Your task to perform on an android device: find which apps use the phone's location Image 0: 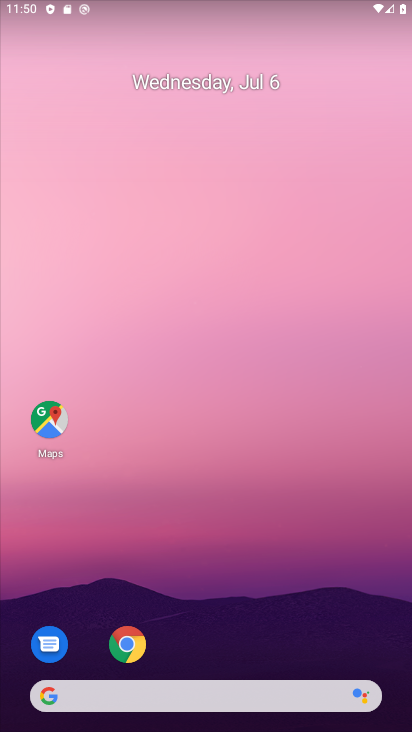
Step 0: drag from (201, 652) to (219, 152)
Your task to perform on an android device: find which apps use the phone's location Image 1: 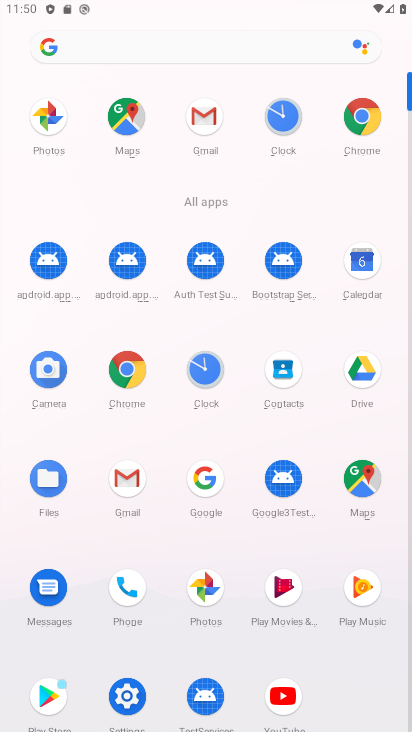
Step 1: click (110, 694)
Your task to perform on an android device: find which apps use the phone's location Image 2: 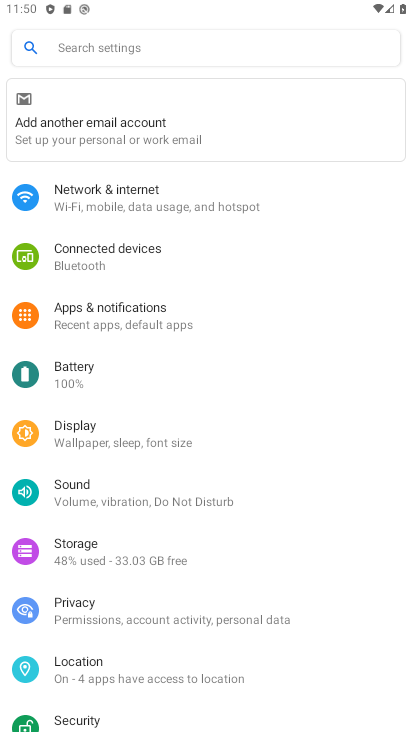
Step 2: click (107, 673)
Your task to perform on an android device: find which apps use the phone's location Image 3: 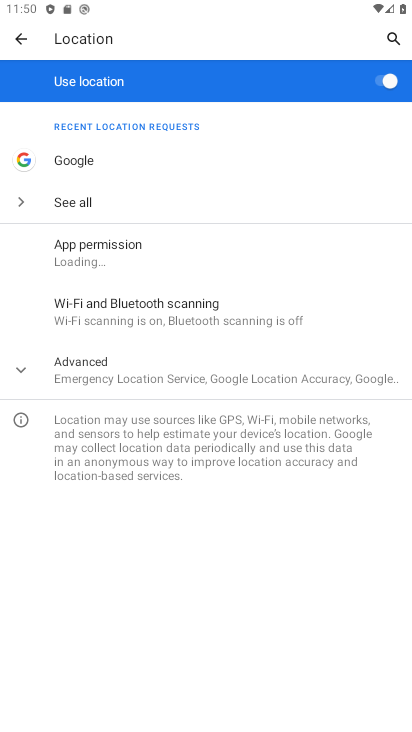
Step 3: click (145, 244)
Your task to perform on an android device: find which apps use the phone's location Image 4: 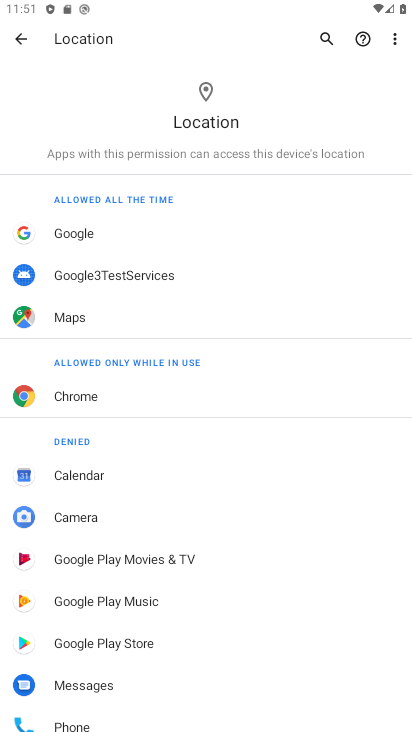
Step 4: task complete